Your task to perform on an android device: toggle airplane mode Image 0: 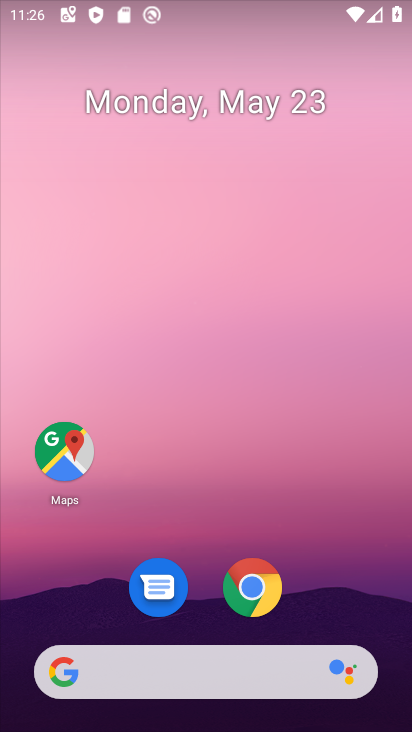
Step 0: drag from (366, 631) to (317, 251)
Your task to perform on an android device: toggle airplane mode Image 1: 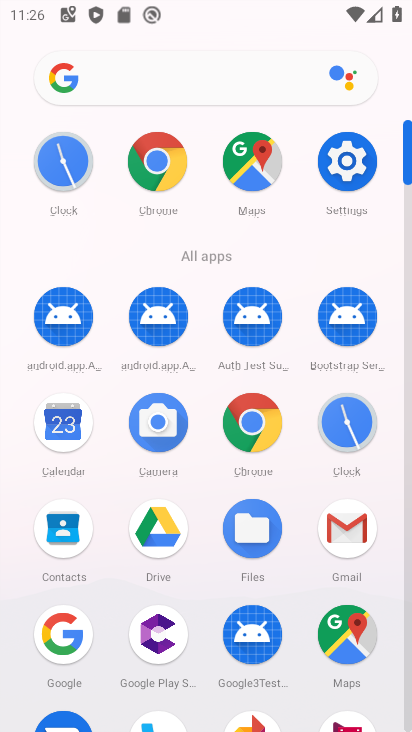
Step 1: click (348, 166)
Your task to perform on an android device: toggle airplane mode Image 2: 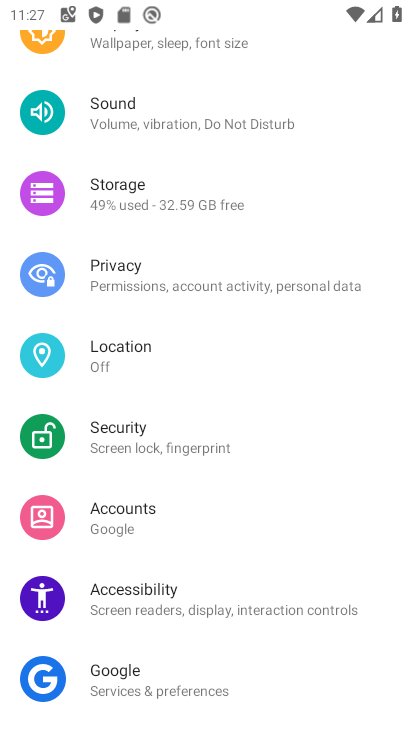
Step 2: drag from (279, 157) to (279, 593)
Your task to perform on an android device: toggle airplane mode Image 3: 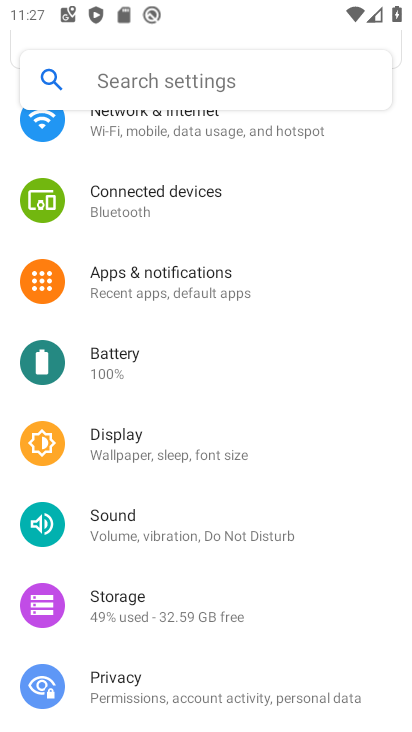
Step 3: click (214, 136)
Your task to perform on an android device: toggle airplane mode Image 4: 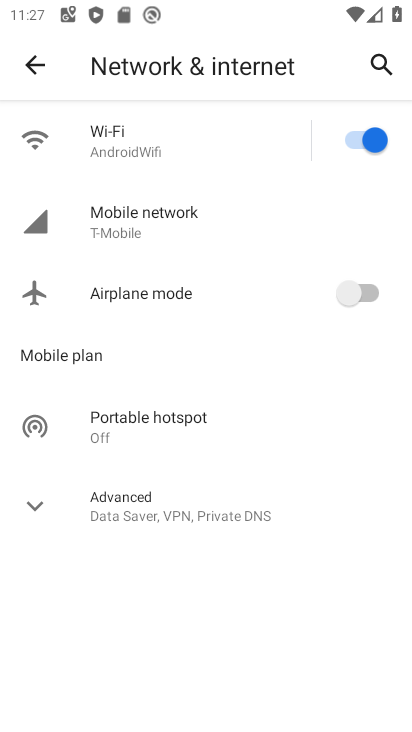
Step 4: click (363, 308)
Your task to perform on an android device: toggle airplane mode Image 5: 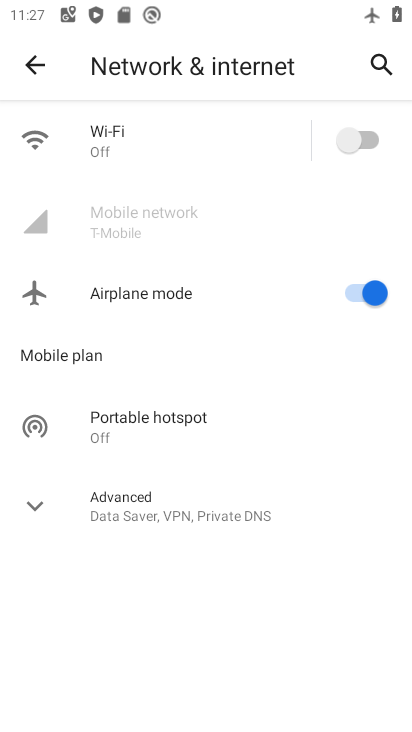
Step 5: task complete